Your task to perform on an android device: Open Chrome and go to settings Image 0: 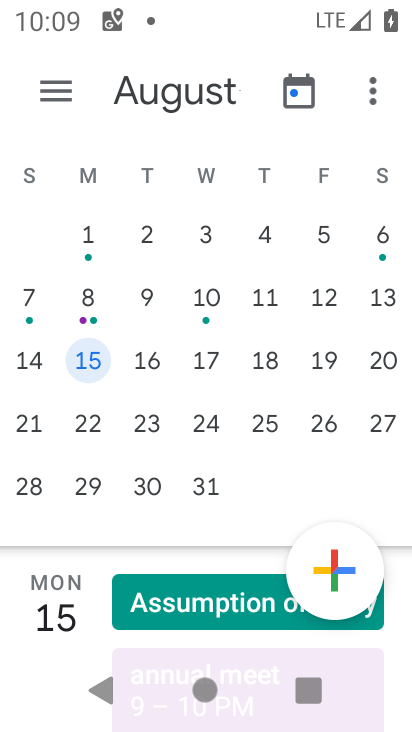
Step 0: press home button
Your task to perform on an android device: Open Chrome and go to settings Image 1: 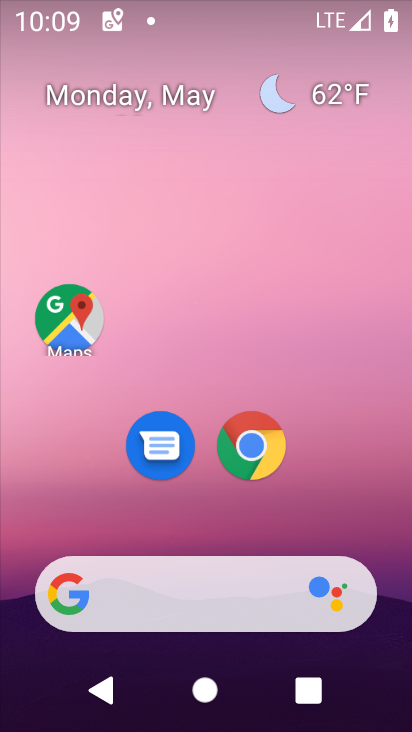
Step 1: drag from (401, 601) to (378, 18)
Your task to perform on an android device: Open Chrome and go to settings Image 2: 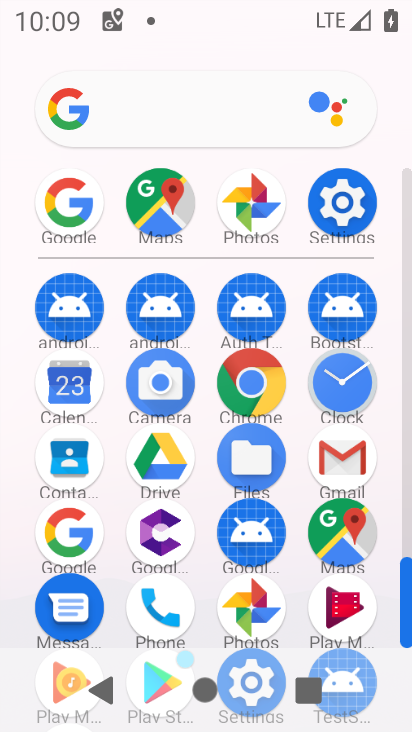
Step 2: click (250, 390)
Your task to perform on an android device: Open Chrome and go to settings Image 3: 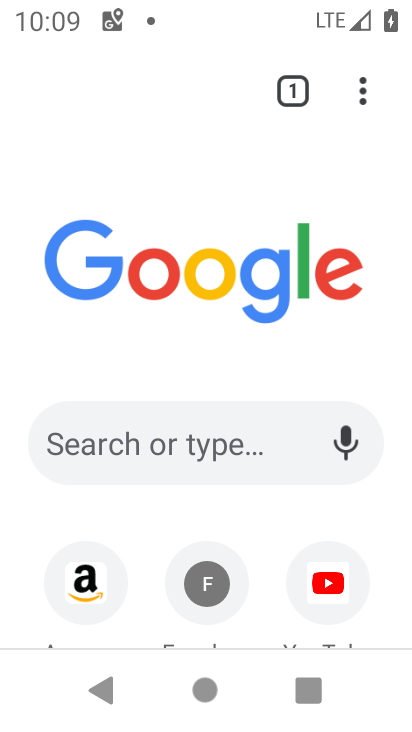
Step 3: click (358, 91)
Your task to perform on an android device: Open Chrome and go to settings Image 4: 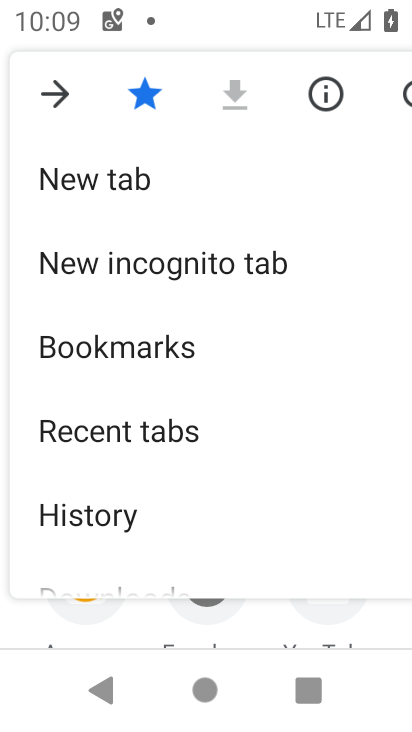
Step 4: drag from (199, 518) to (156, 149)
Your task to perform on an android device: Open Chrome and go to settings Image 5: 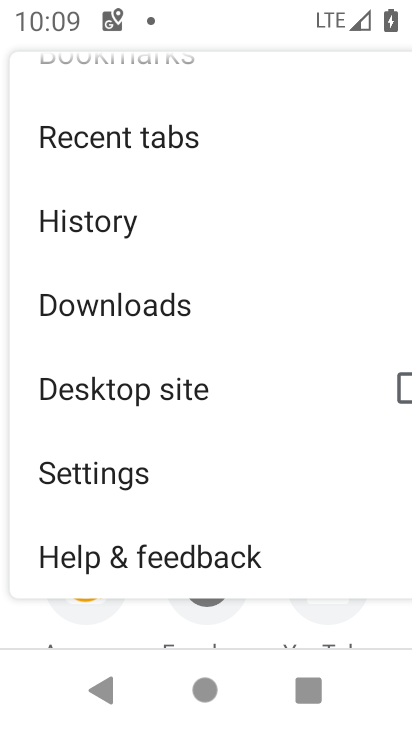
Step 5: click (122, 471)
Your task to perform on an android device: Open Chrome and go to settings Image 6: 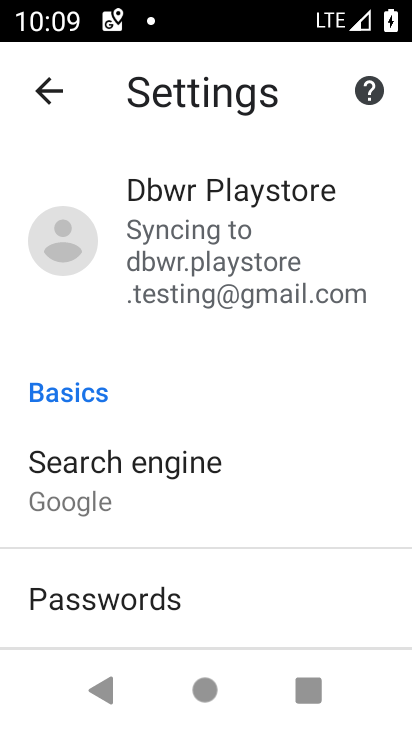
Step 6: task complete